Your task to perform on an android device: Go to sound settings Image 0: 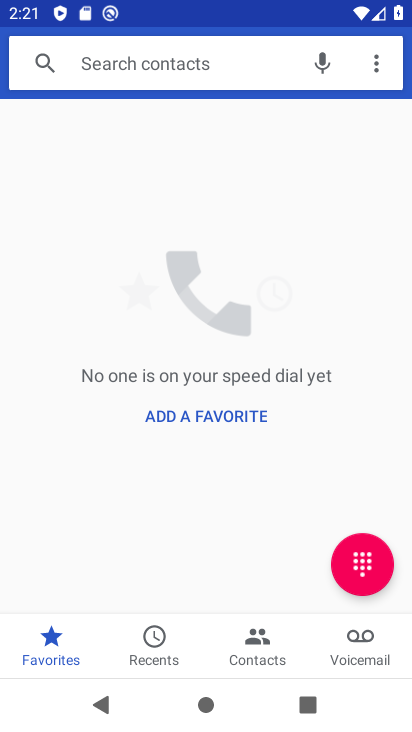
Step 0: drag from (281, 544) to (217, 181)
Your task to perform on an android device: Go to sound settings Image 1: 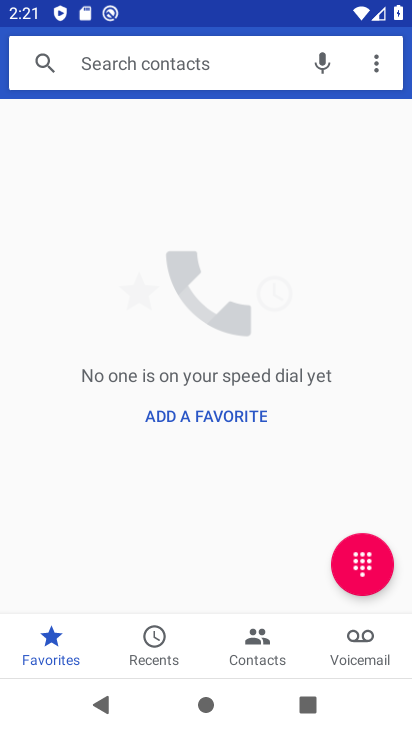
Step 1: press back button
Your task to perform on an android device: Go to sound settings Image 2: 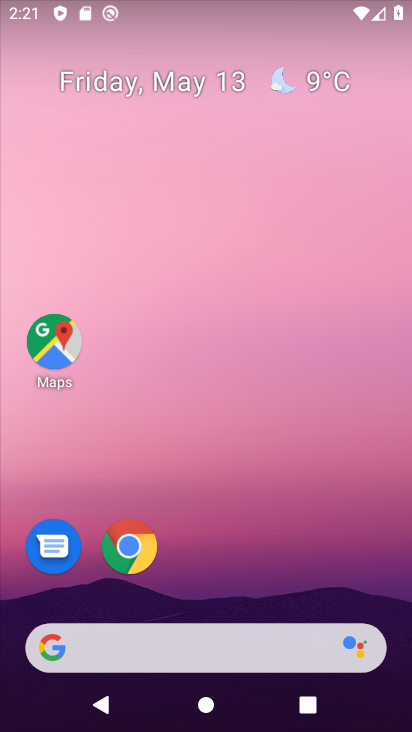
Step 2: drag from (317, 501) to (260, 40)
Your task to perform on an android device: Go to sound settings Image 3: 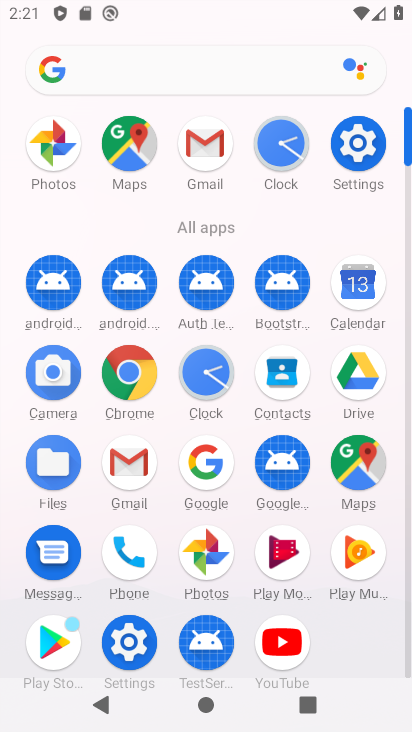
Step 3: drag from (3, 491) to (12, 197)
Your task to perform on an android device: Go to sound settings Image 4: 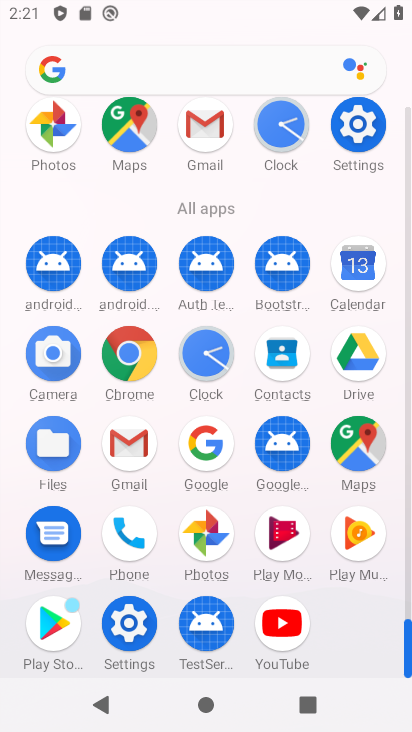
Step 4: click (131, 625)
Your task to perform on an android device: Go to sound settings Image 5: 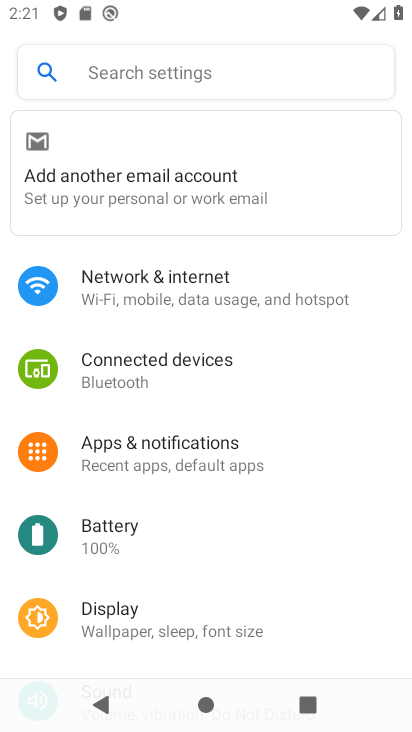
Step 5: drag from (233, 572) to (259, 251)
Your task to perform on an android device: Go to sound settings Image 6: 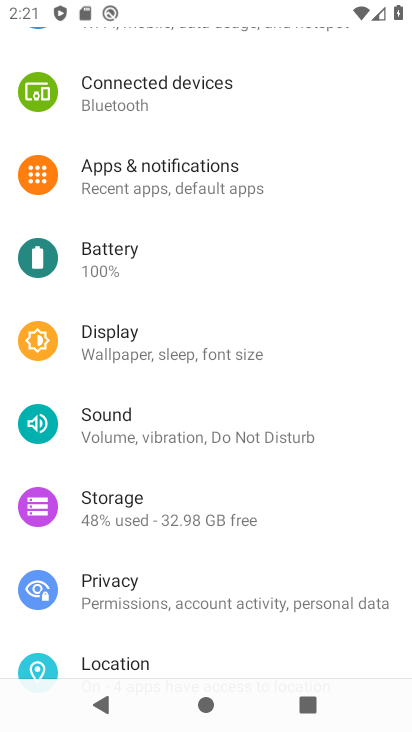
Step 6: click (140, 424)
Your task to perform on an android device: Go to sound settings Image 7: 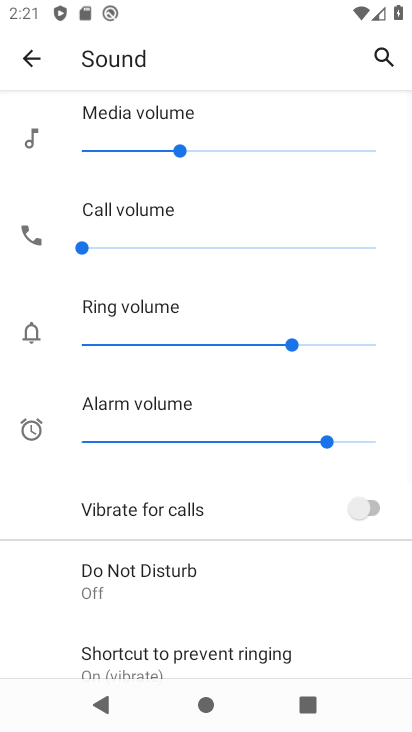
Step 7: click (220, 185)
Your task to perform on an android device: Go to sound settings Image 8: 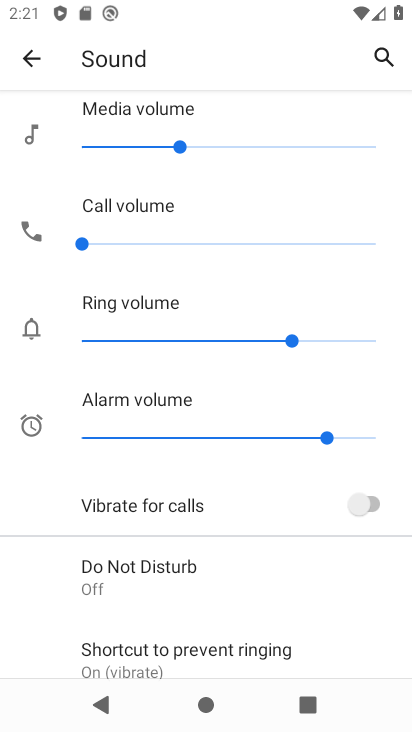
Step 8: drag from (226, 569) to (250, 165)
Your task to perform on an android device: Go to sound settings Image 9: 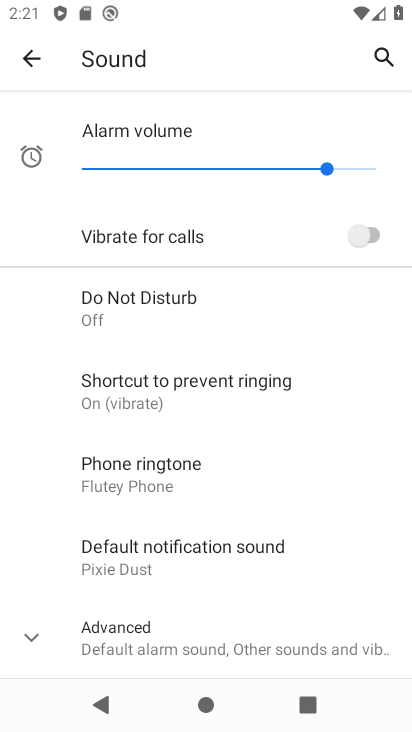
Step 9: click (37, 647)
Your task to perform on an android device: Go to sound settings Image 10: 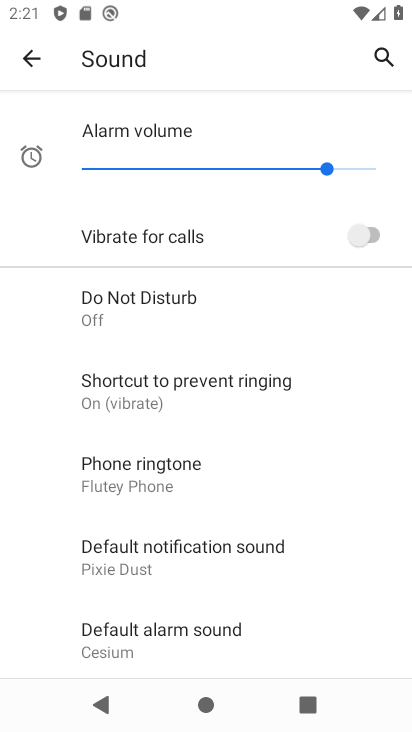
Step 10: task complete